Your task to perform on an android device: toggle priority inbox in the gmail app Image 0: 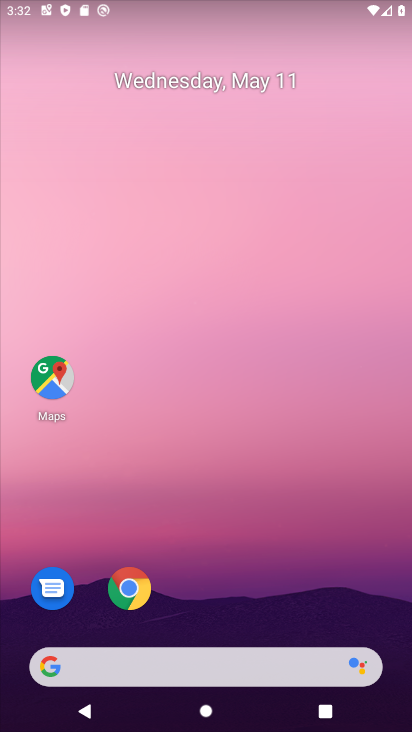
Step 0: drag from (243, 326) to (286, 15)
Your task to perform on an android device: toggle priority inbox in the gmail app Image 1: 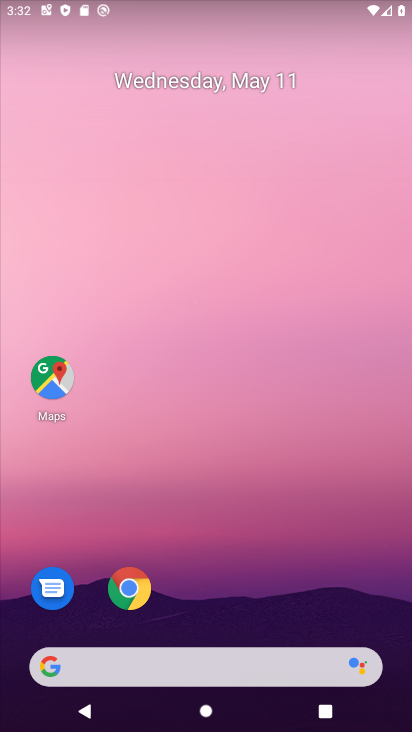
Step 1: drag from (185, 603) to (275, 1)
Your task to perform on an android device: toggle priority inbox in the gmail app Image 2: 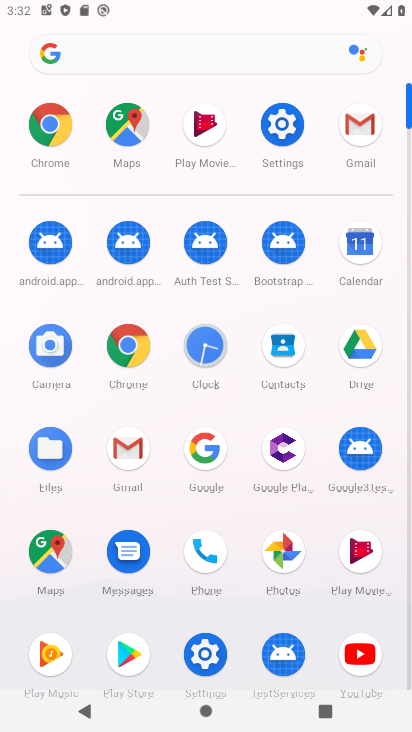
Step 2: click (134, 467)
Your task to perform on an android device: toggle priority inbox in the gmail app Image 3: 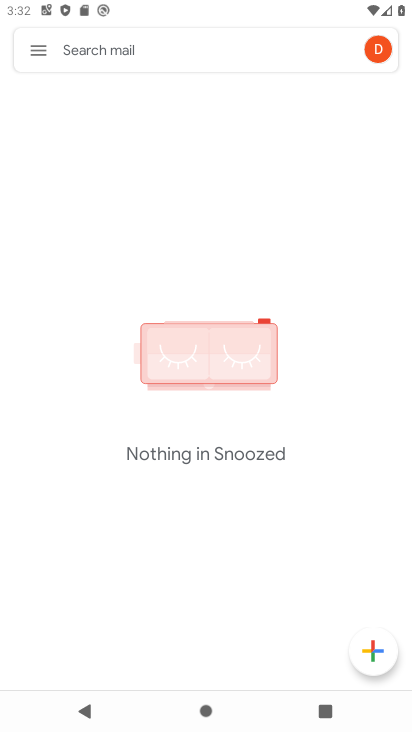
Step 3: click (41, 49)
Your task to perform on an android device: toggle priority inbox in the gmail app Image 4: 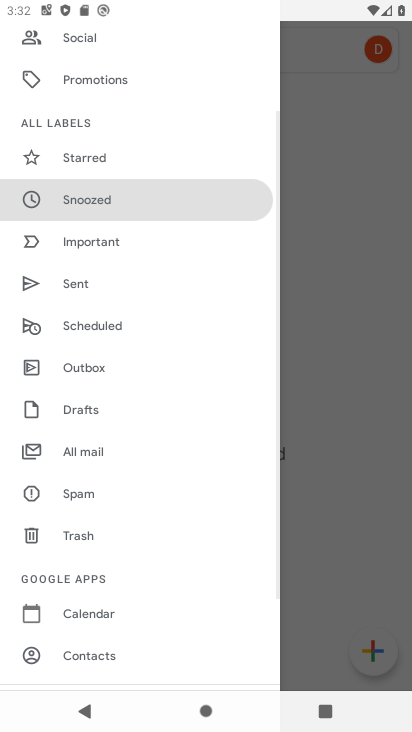
Step 4: drag from (74, 654) to (170, 217)
Your task to perform on an android device: toggle priority inbox in the gmail app Image 5: 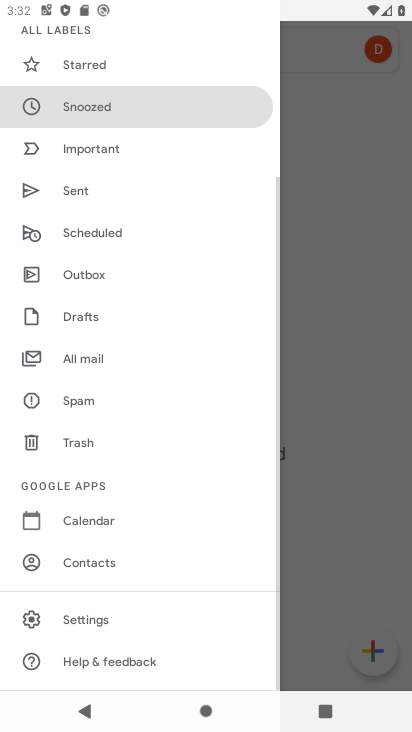
Step 5: click (81, 628)
Your task to perform on an android device: toggle priority inbox in the gmail app Image 6: 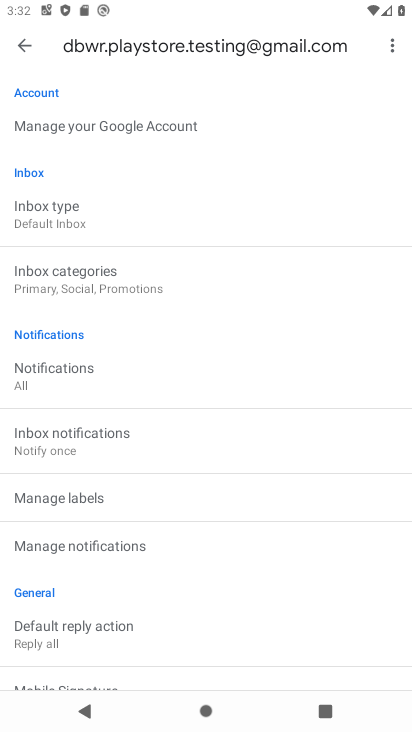
Step 6: click (69, 228)
Your task to perform on an android device: toggle priority inbox in the gmail app Image 7: 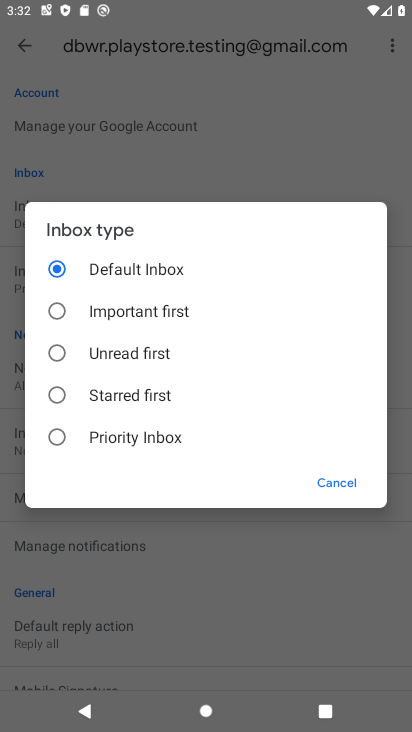
Step 7: click (57, 433)
Your task to perform on an android device: toggle priority inbox in the gmail app Image 8: 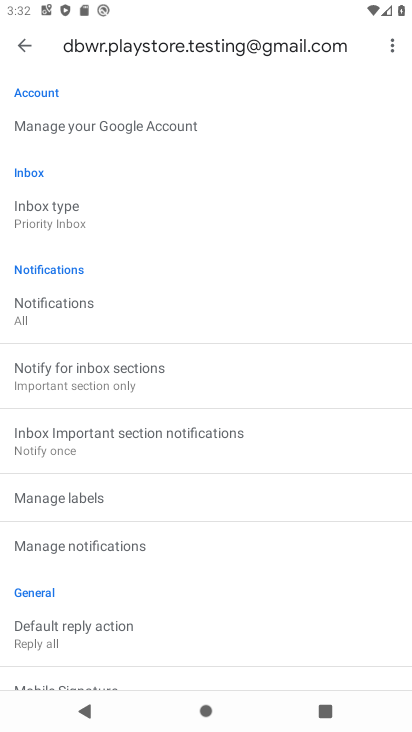
Step 8: task complete